Your task to perform on an android device: Play the last video I watched on Youtube Image 0: 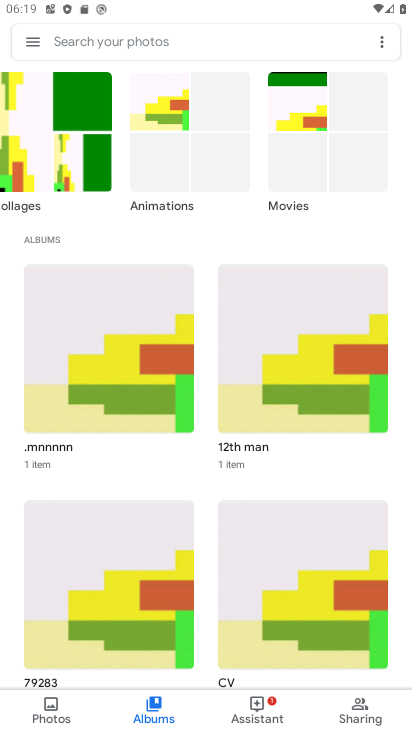
Step 0: press home button
Your task to perform on an android device: Play the last video I watched on Youtube Image 1: 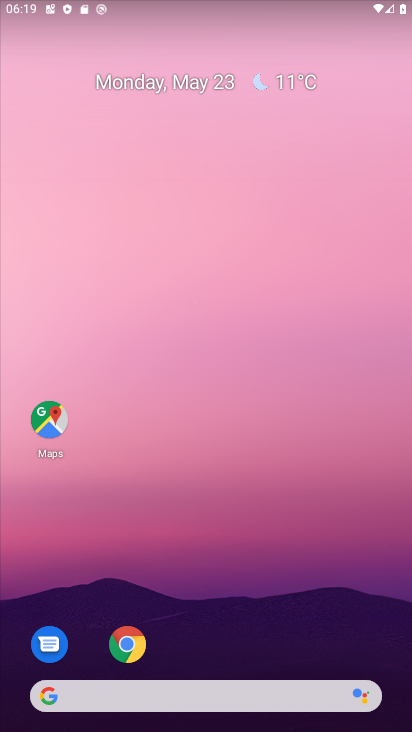
Step 1: drag from (213, 559) to (188, 83)
Your task to perform on an android device: Play the last video I watched on Youtube Image 2: 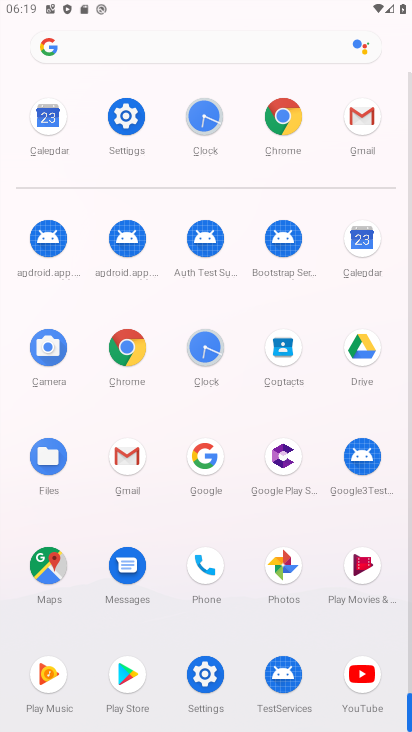
Step 2: click (305, 247)
Your task to perform on an android device: Play the last video I watched on Youtube Image 3: 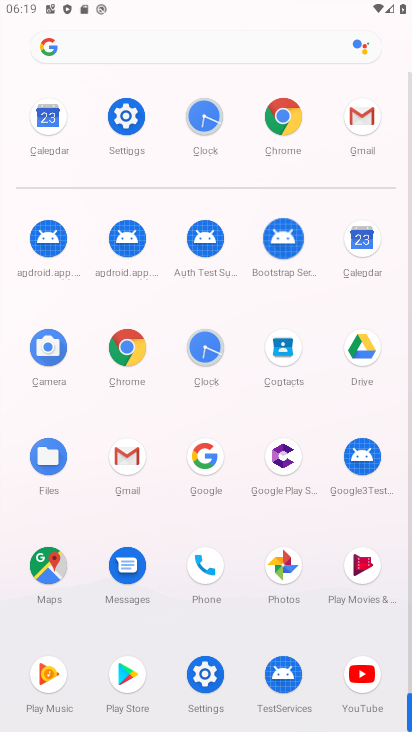
Step 3: click (349, 691)
Your task to perform on an android device: Play the last video I watched on Youtube Image 4: 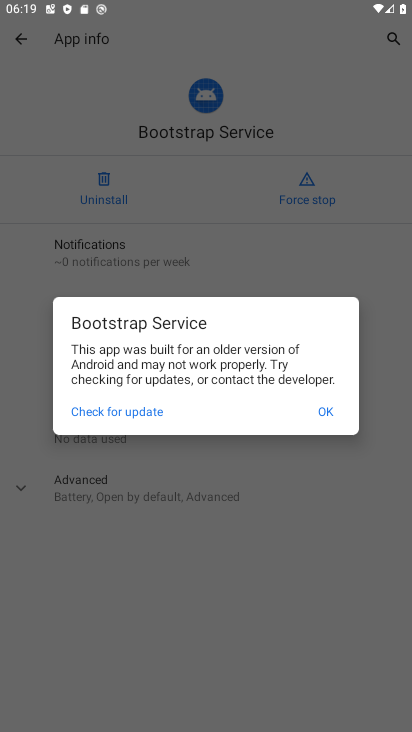
Step 4: click (204, 540)
Your task to perform on an android device: Play the last video I watched on Youtube Image 5: 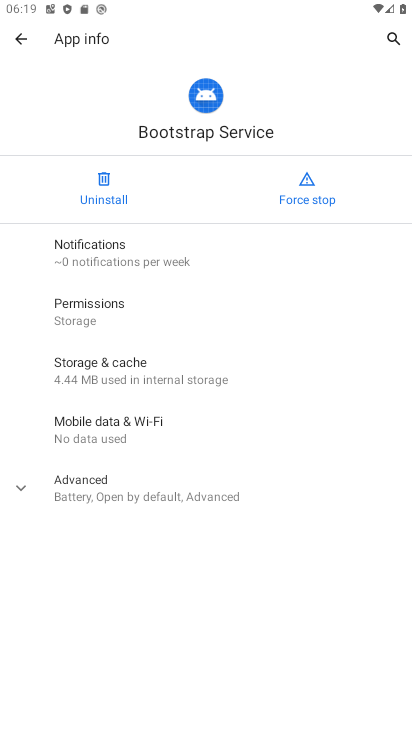
Step 5: press back button
Your task to perform on an android device: Play the last video I watched on Youtube Image 6: 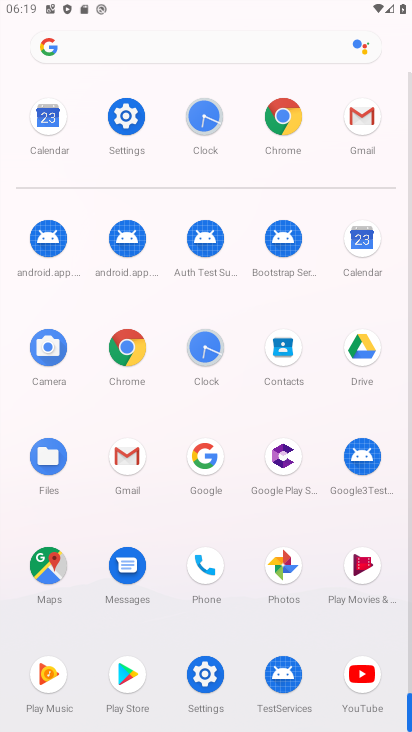
Step 6: click (365, 681)
Your task to perform on an android device: Play the last video I watched on Youtube Image 7: 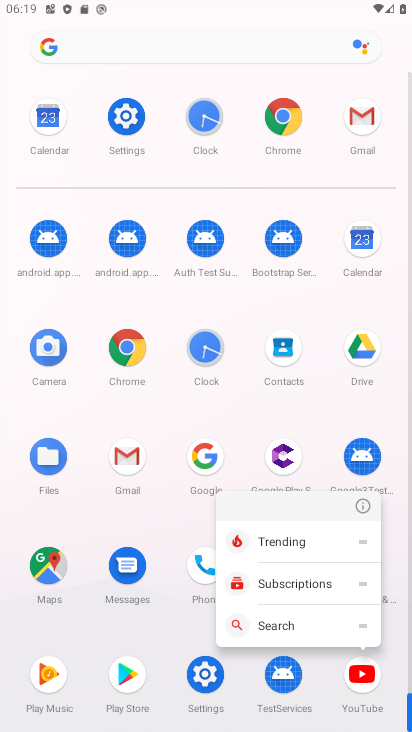
Step 7: click (360, 692)
Your task to perform on an android device: Play the last video I watched on Youtube Image 8: 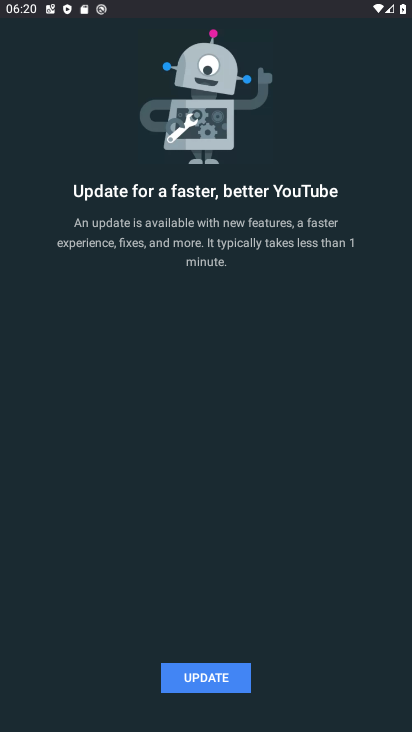
Step 8: click (176, 683)
Your task to perform on an android device: Play the last video I watched on Youtube Image 9: 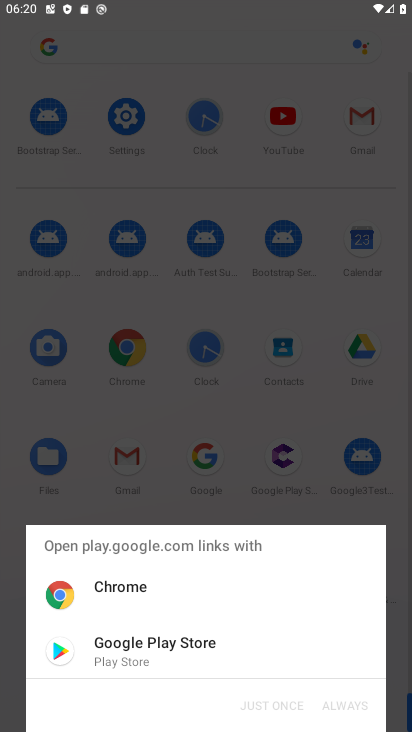
Step 9: click (159, 665)
Your task to perform on an android device: Play the last video I watched on Youtube Image 10: 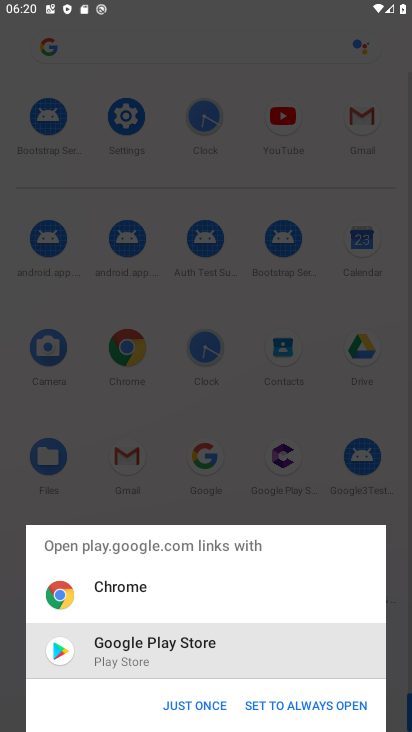
Step 10: click (281, 720)
Your task to perform on an android device: Play the last video I watched on Youtube Image 11: 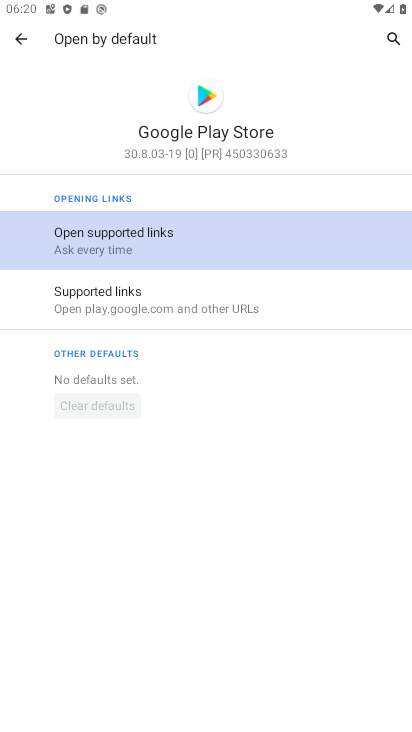
Step 11: click (140, 230)
Your task to perform on an android device: Play the last video I watched on Youtube Image 12: 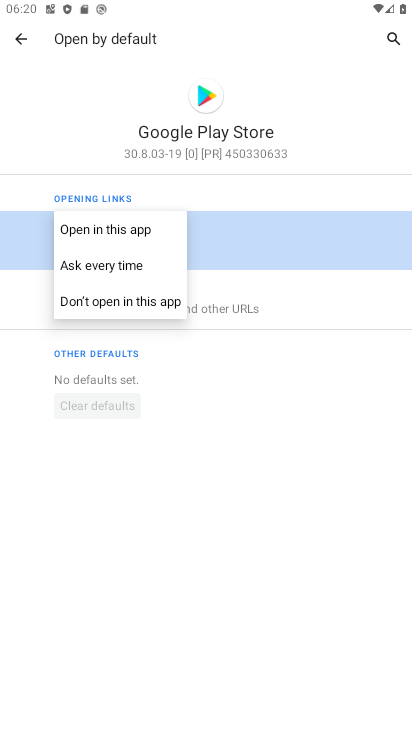
Step 12: click (100, 232)
Your task to perform on an android device: Play the last video I watched on Youtube Image 13: 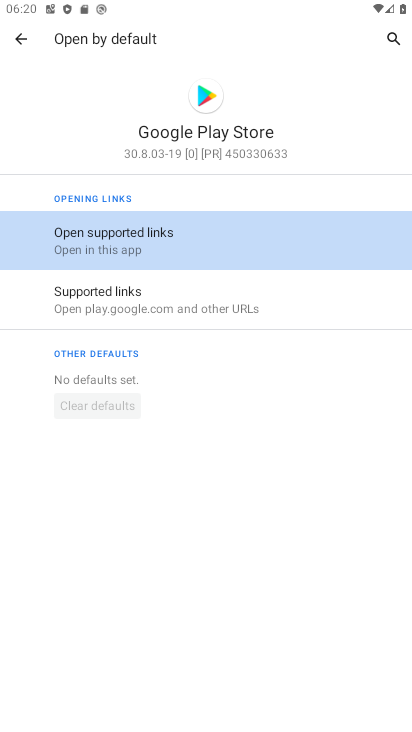
Step 13: click (19, 40)
Your task to perform on an android device: Play the last video I watched on Youtube Image 14: 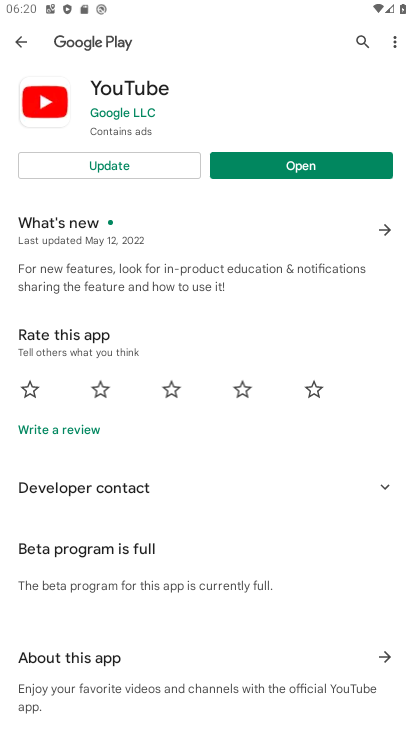
Step 14: click (258, 168)
Your task to perform on an android device: Play the last video I watched on Youtube Image 15: 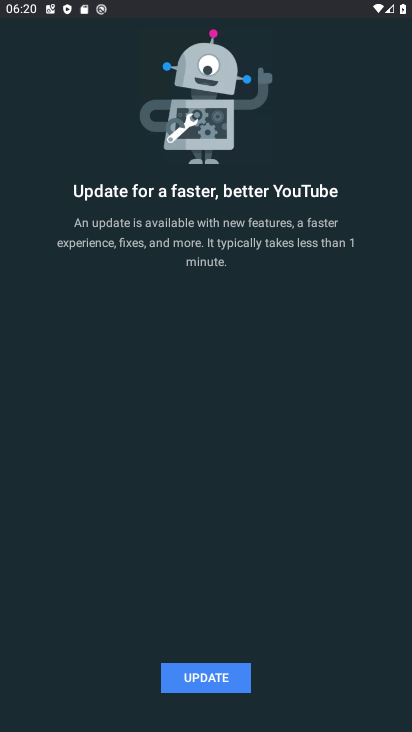
Step 15: click (210, 677)
Your task to perform on an android device: Play the last video I watched on Youtube Image 16: 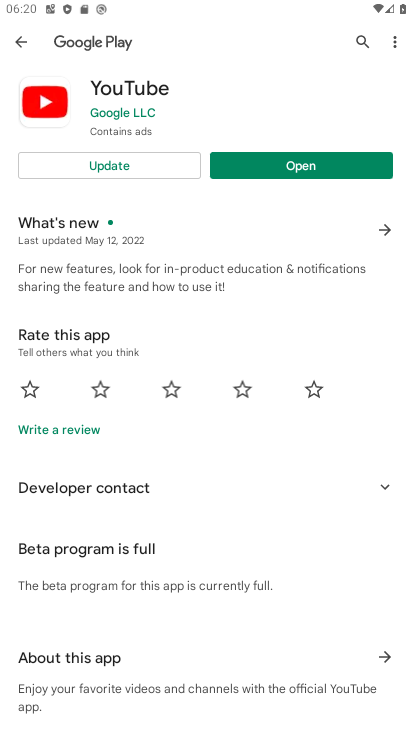
Step 16: click (108, 161)
Your task to perform on an android device: Play the last video I watched on Youtube Image 17: 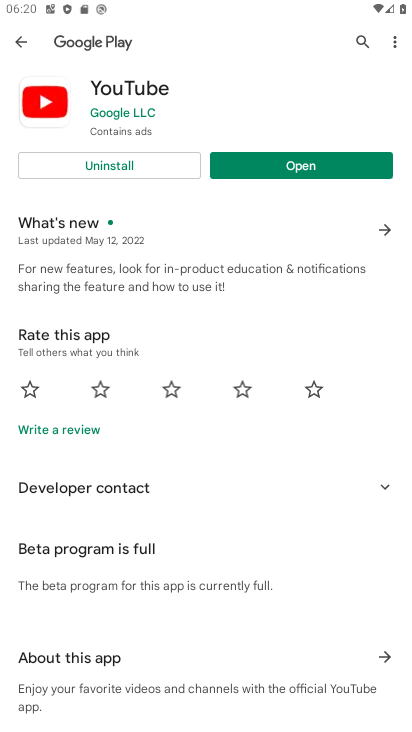
Step 17: click (290, 170)
Your task to perform on an android device: Play the last video I watched on Youtube Image 18: 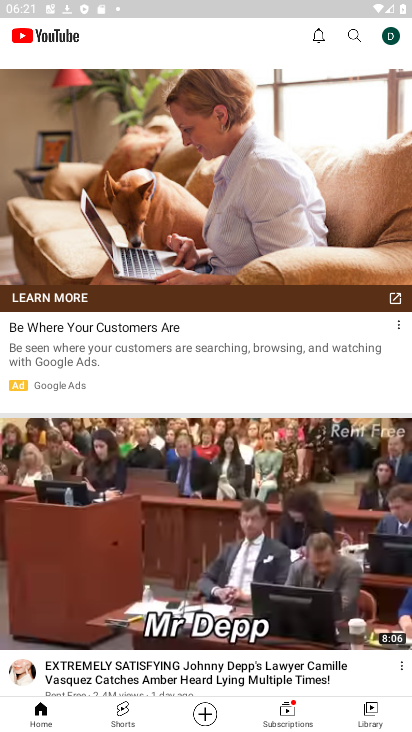
Step 18: click (362, 719)
Your task to perform on an android device: Play the last video I watched on Youtube Image 19: 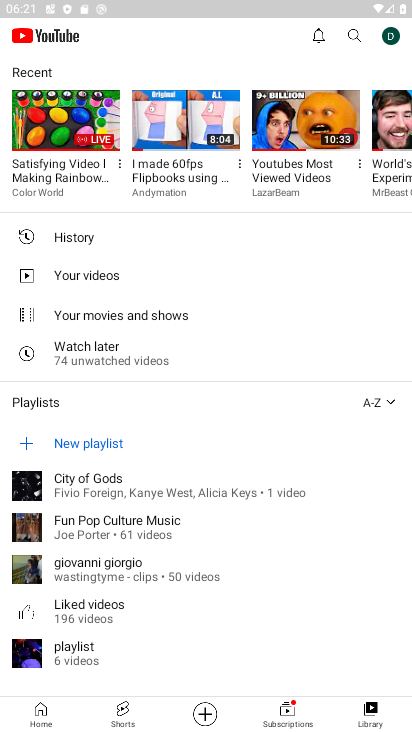
Step 19: task complete